Your task to perform on an android device: open a new tab in the chrome app Image 0: 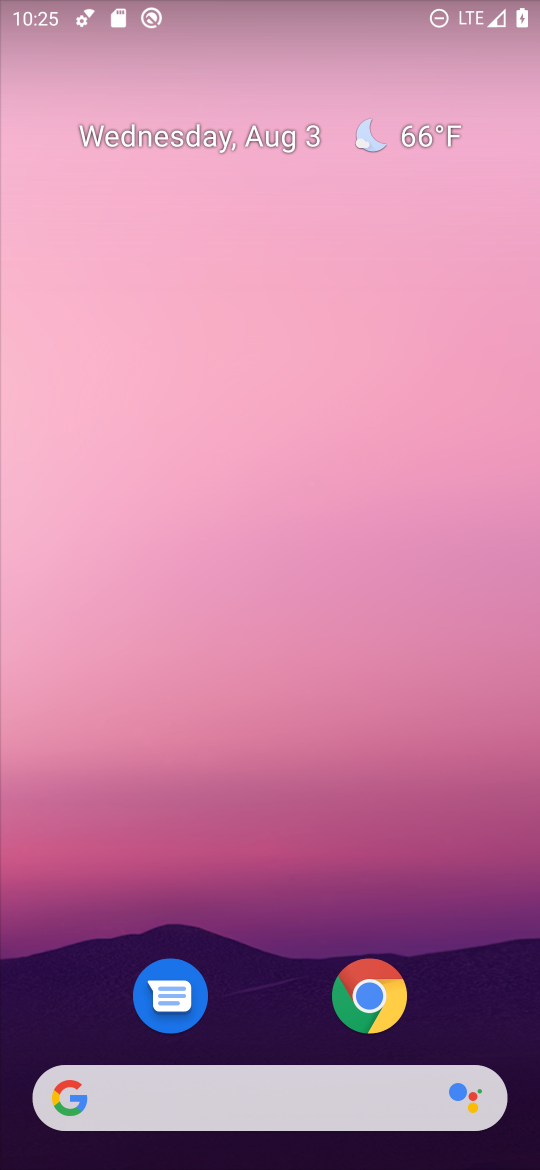
Step 0: click (365, 995)
Your task to perform on an android device: open a new tab in the chrome app Image 1: 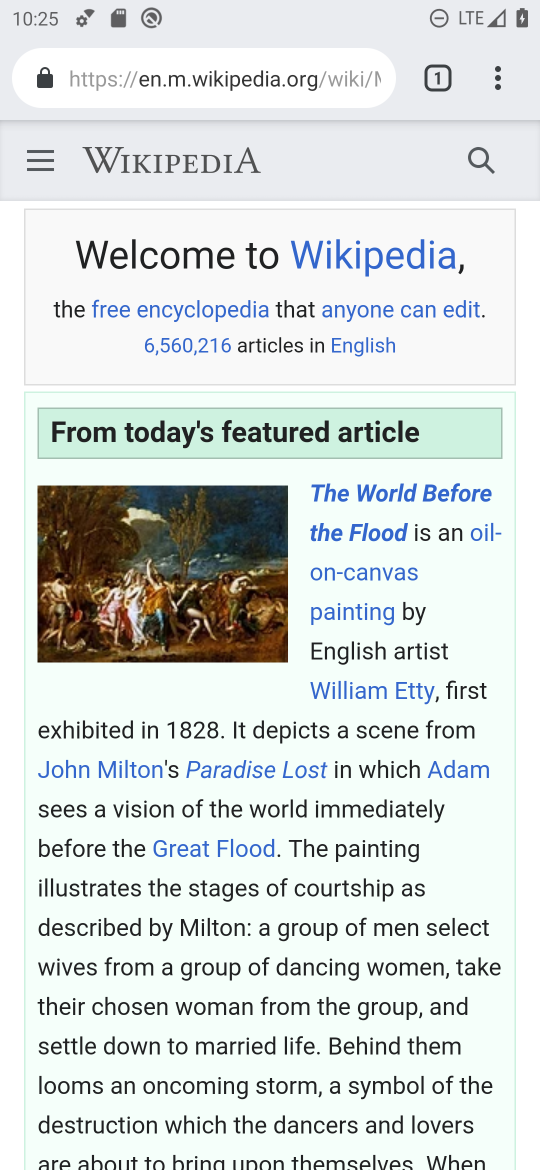
Step 1: click (497, 83)
Your task to perform on an android device: open a new tab in the chrome app Image 2: 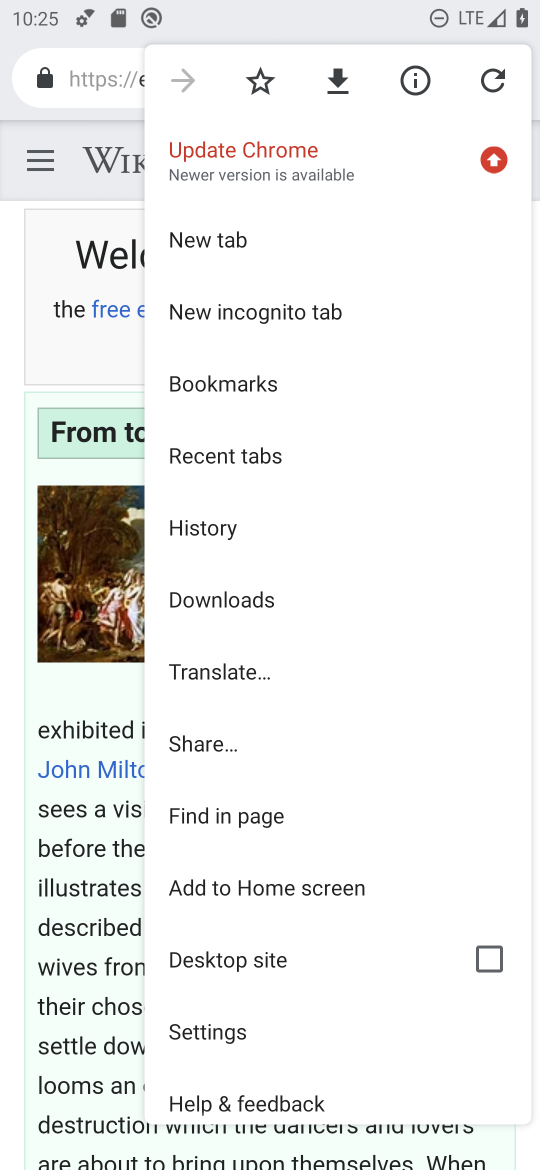
Step 2: click (327, 247)
Your task to perform on an android device: open a new tab in the chrome app Image 3: 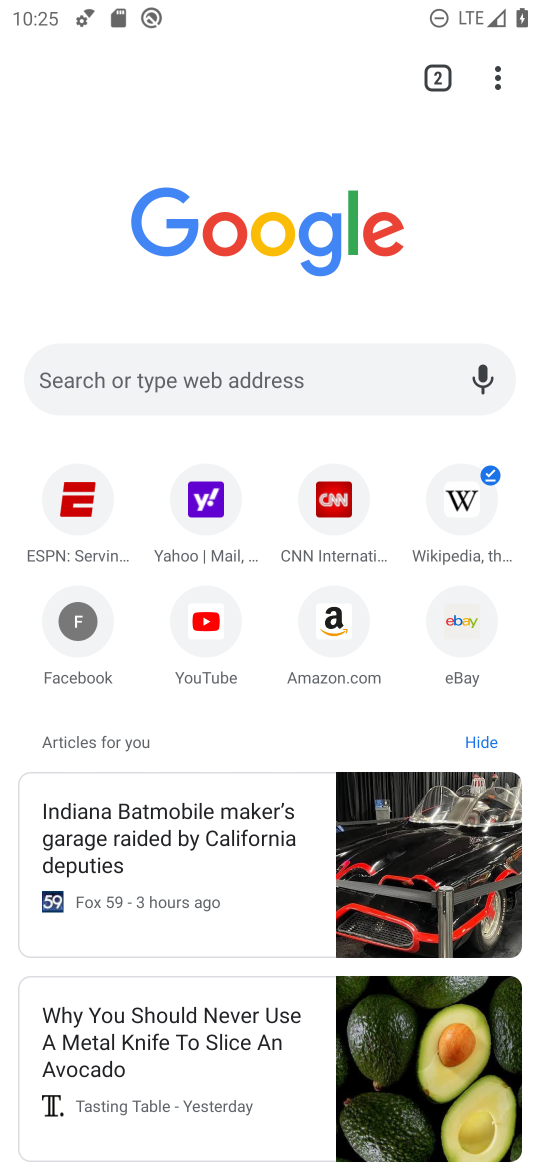
Step 3: task complete